Your task to perform on an android device: turn on airplane mode Image 0: 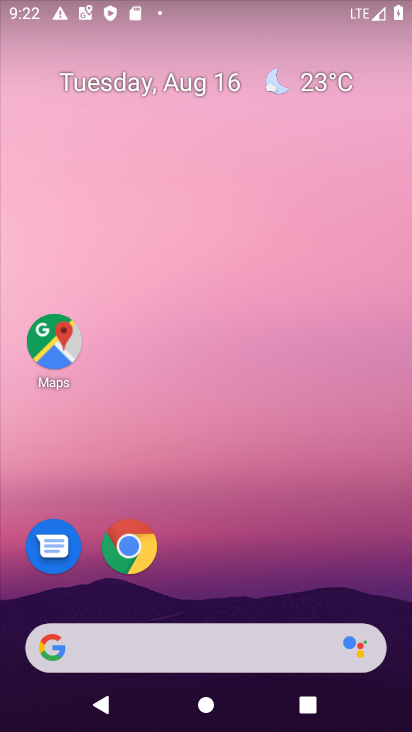
Step 0: drag from (237, 558) to (241, 11)
Your task to perform on an android device: turn on airplane mode Image 1: 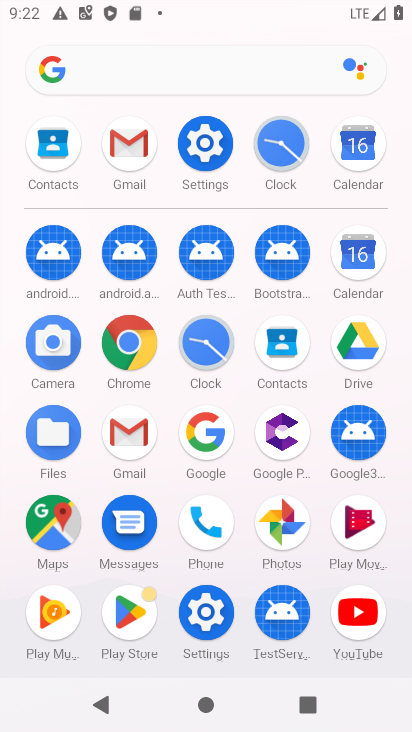
Step 1: click (204, 145)
Your task to perform on an android device: turn on airplane mode Image 2: 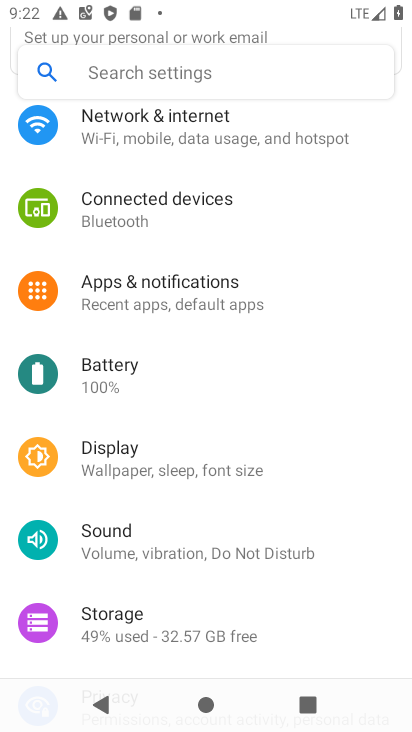
Step 2: click (206, 135)
Your task to perform on an android device: turn on airplane mode Image 3: 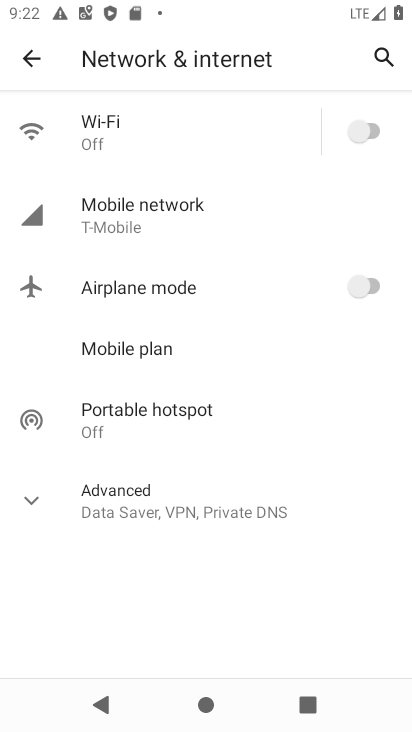
Step 3: click (367, 286)
Your task to perform on an android device: turn on airplane mode Image 4: 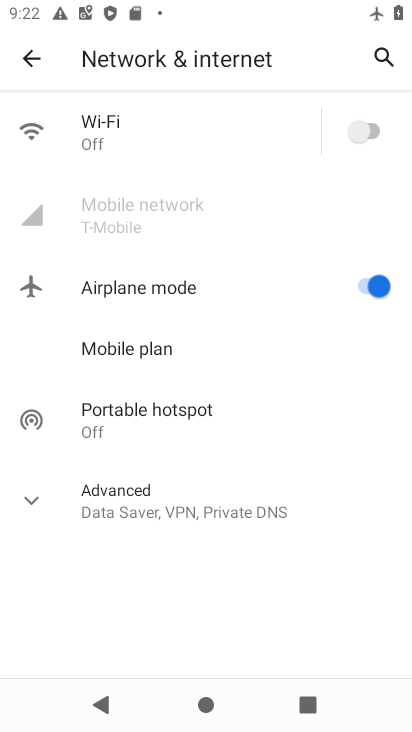
Step 4: task complete